Your task to perform on an android device: turn on translation in the chrome app Image 0: 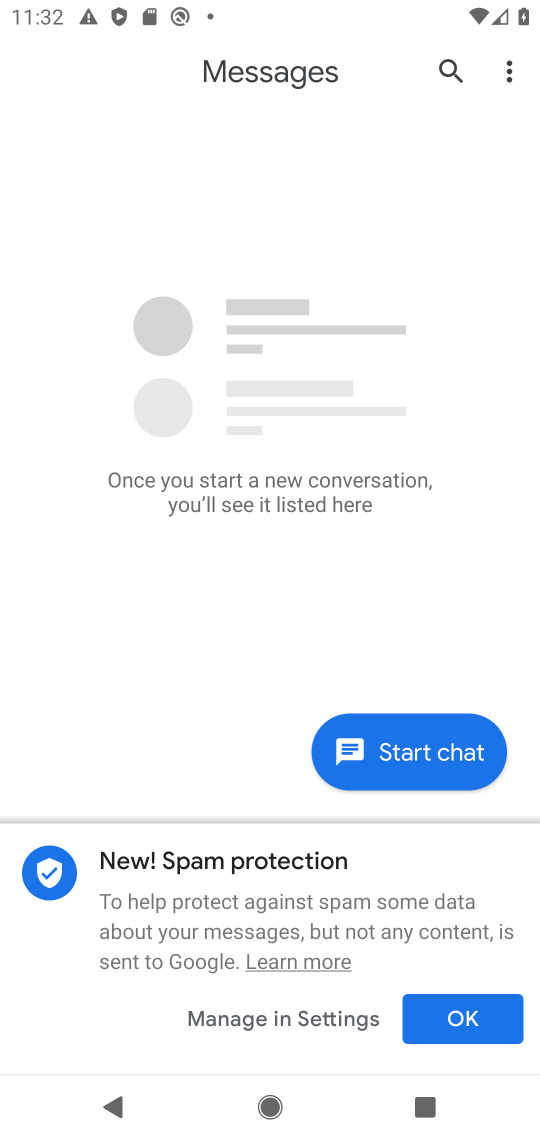
Step 0: press home button
Your task to perform on an android device: turn on translation in the chrome app Image 1: 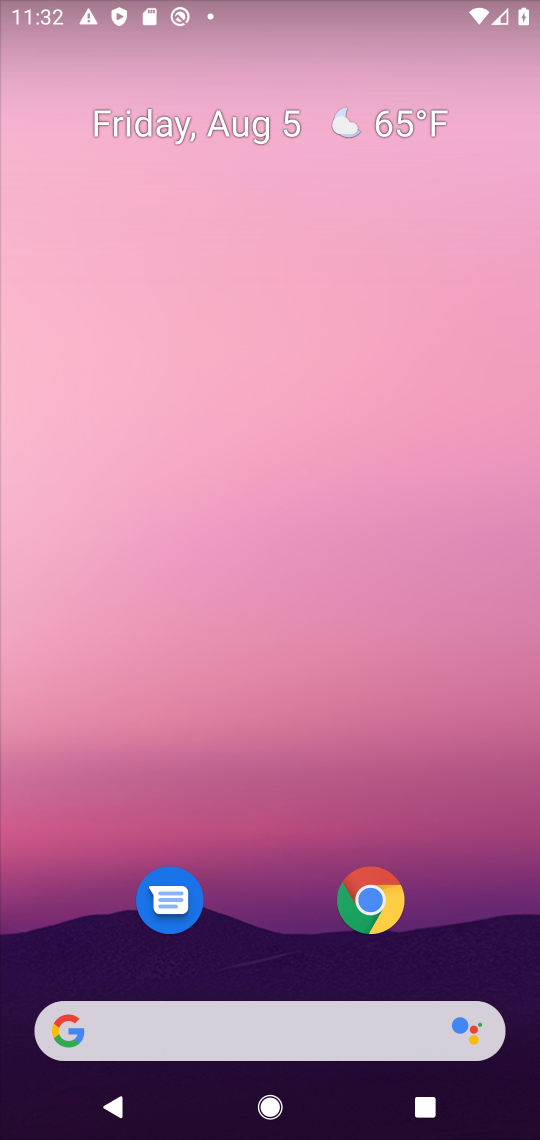
Step 1: click (373, 907)
Your task to perform on an android device: turn on translation in the chrome app Image 2: 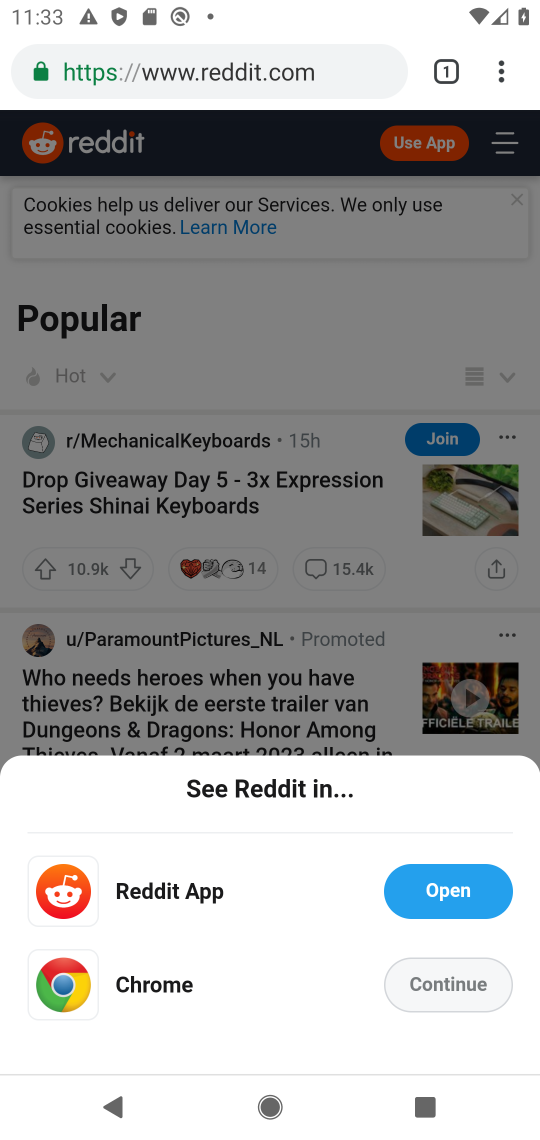
Step 2: click (503, 82)
Your task to perform on an android device: turn on translation in the chrome app Image 3: 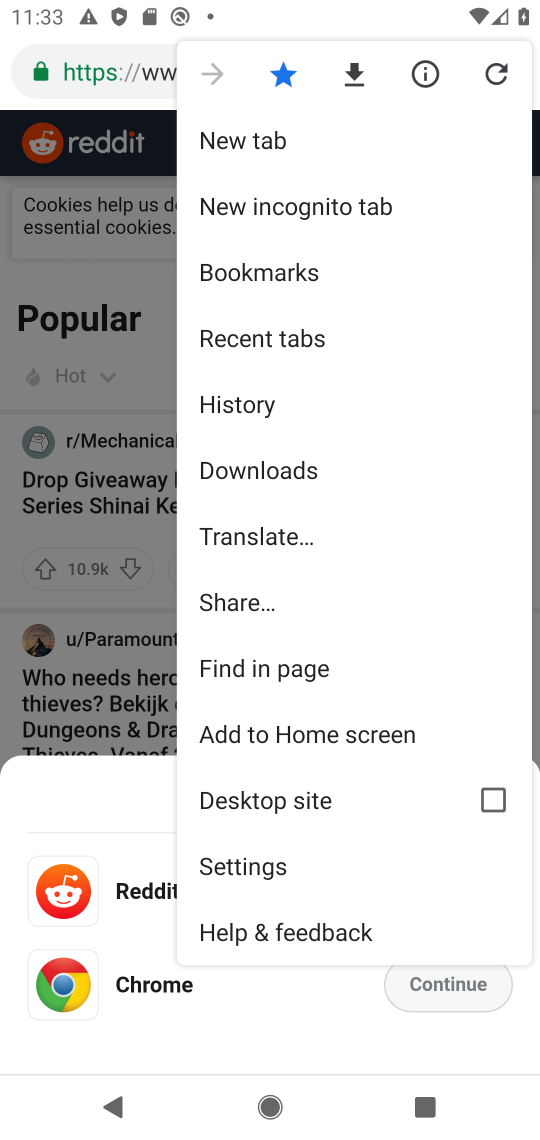
Step 3: click (247, 866)
Your task to perform on an android device: turn on translation in the chrome app Image 4: 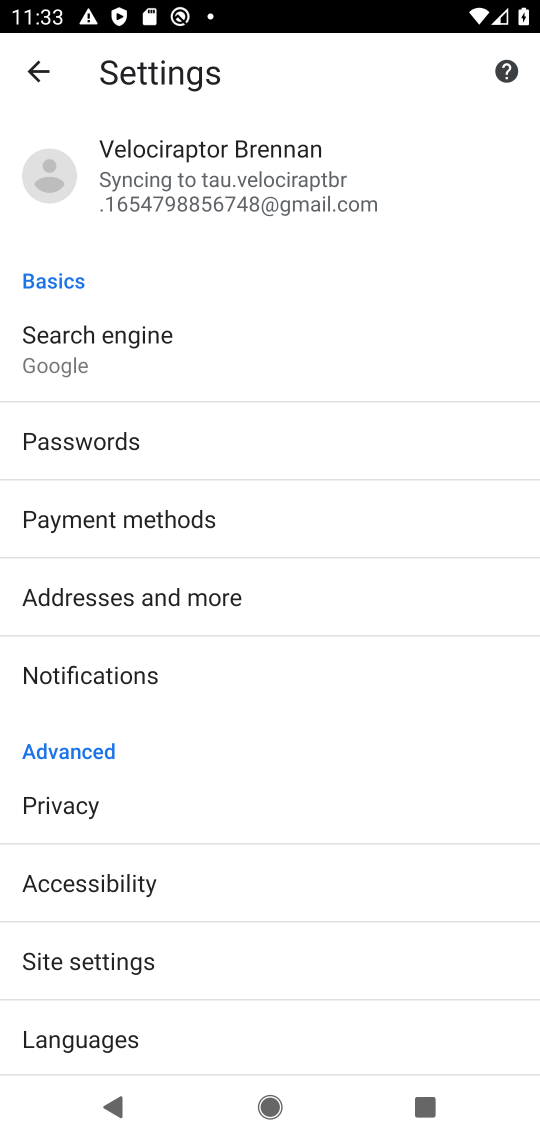
Step 4: click (106, 1031)
Your task to perform on an android device: turn on translation in the chrome app Image 5: 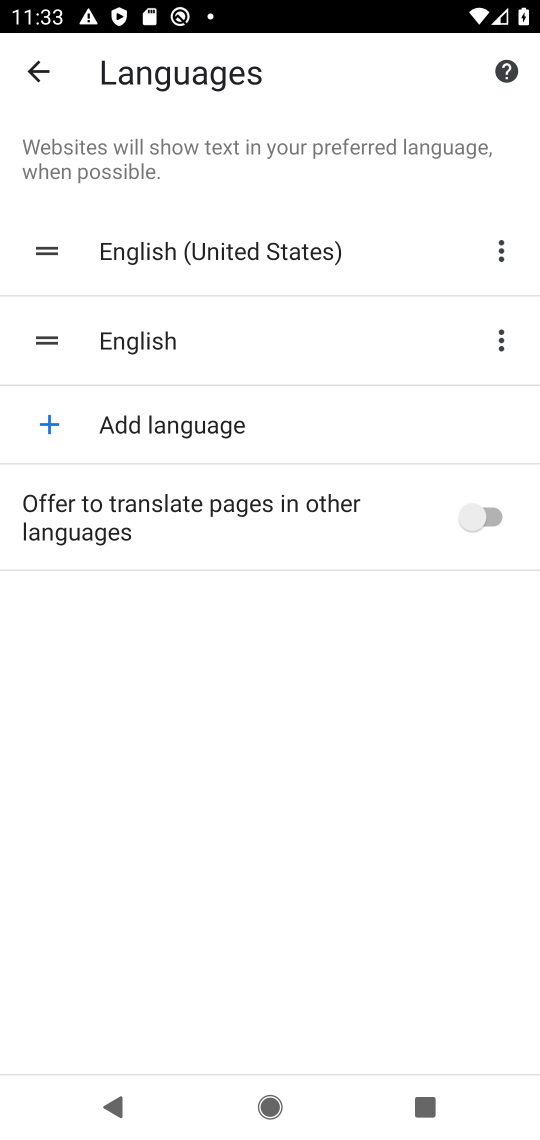
Step 5: click (487, 513)
Your task to perform on an android device: turn on translation in the chrome app Image 6: 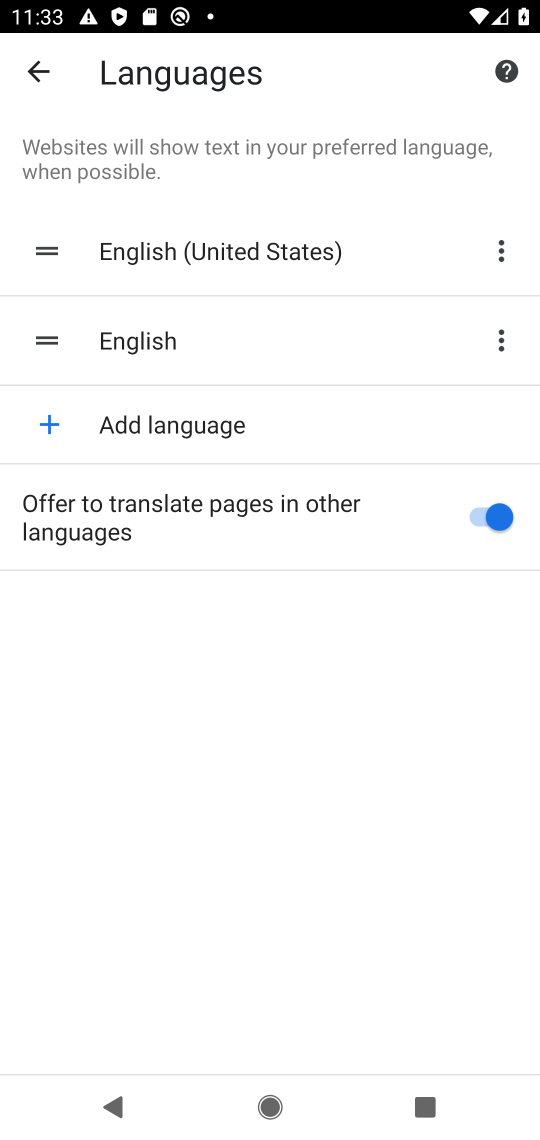
Step 6: task complete